Your task to perform on an android device: What's on my calendar tomorrow? Image 0: 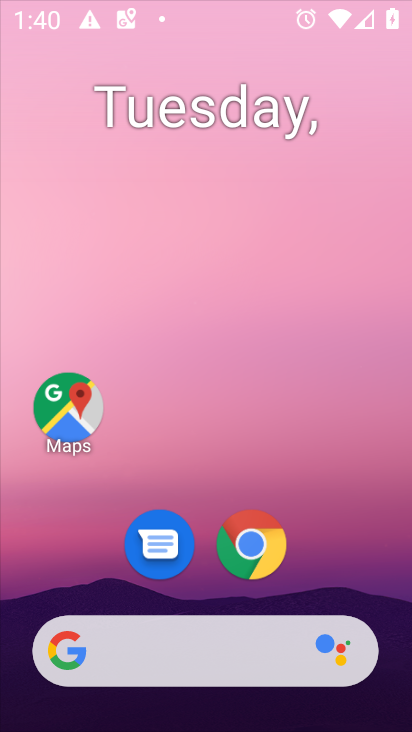
Step 0: press home button
Your task to perform on an android device: What's on my calendar tomorrow? Image 1: 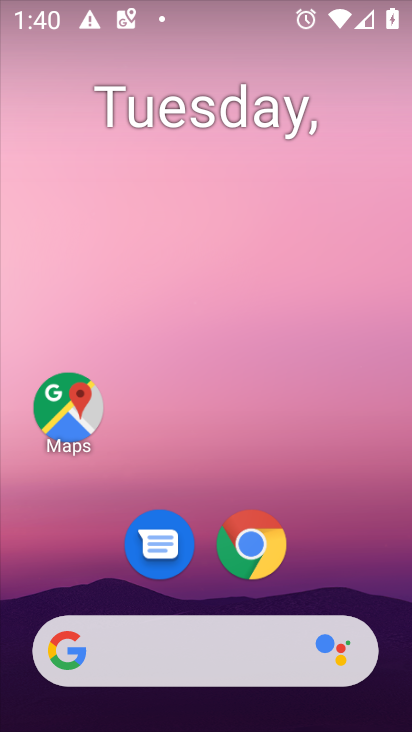
Step 1: press home button
Your task to perform on an android device: What's on my calendar tomorrow? Image 2: 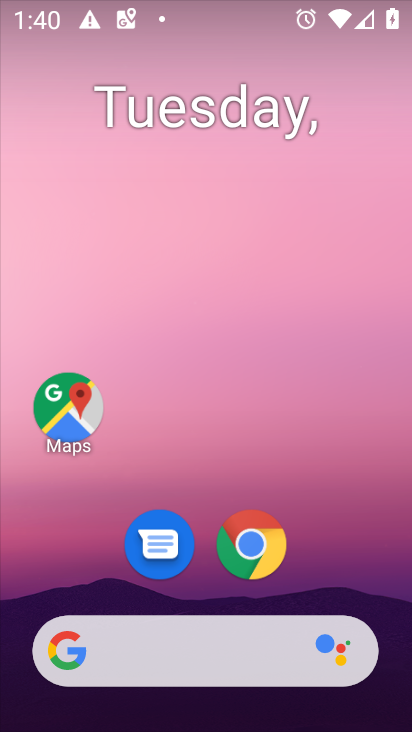
Step 2: drag from (314, 556) to (322, 140)
Your task to perform on an android device: What's on my calendar tomorrow? Image 3: 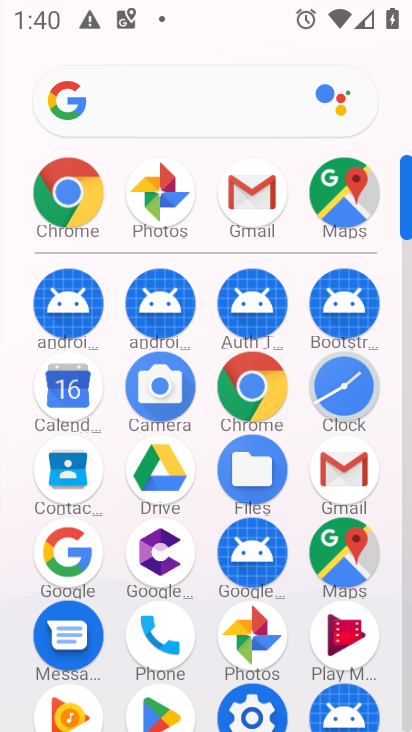
Step 3: click (251, 381)
Your task to perform on an android device: What's on my calendar tomorrow? Image 4: 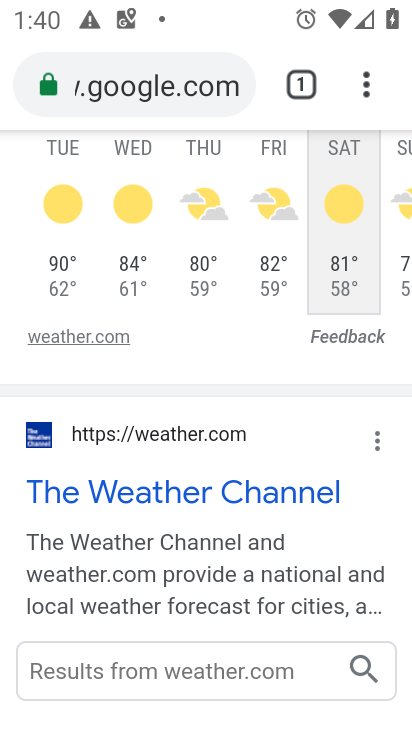
Step 4: press home button
Your task to perform on an android device: What's on my calendar tomorrow? Image 5: 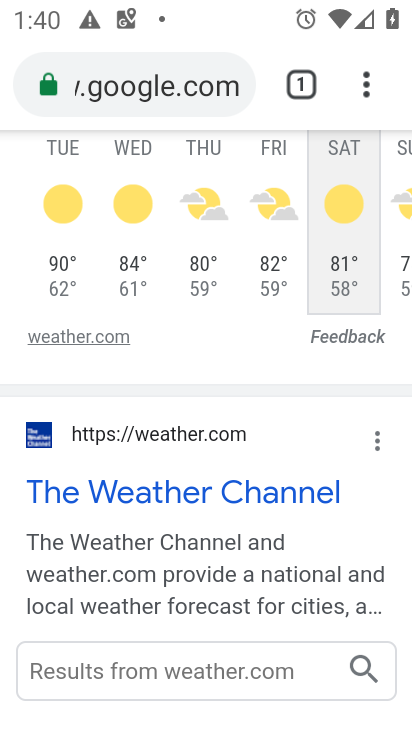
Step 5: press home button
Your task to perform on an android device: What's on my calendar tomorrow? Image 6: 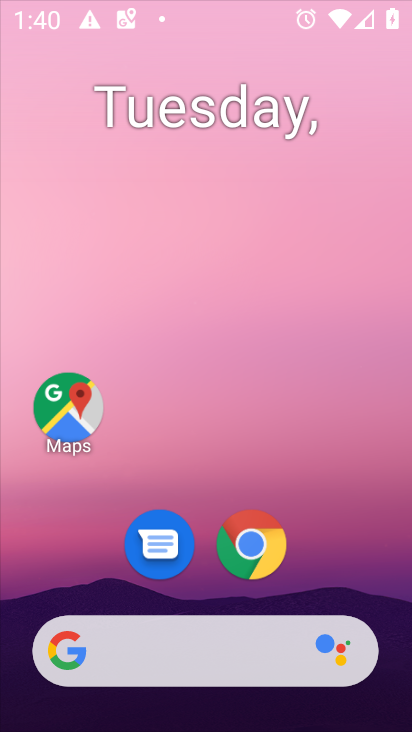
Step 6: press home button
Your task to perform on an android device: What's on my calendar tomorrow? Image 7: 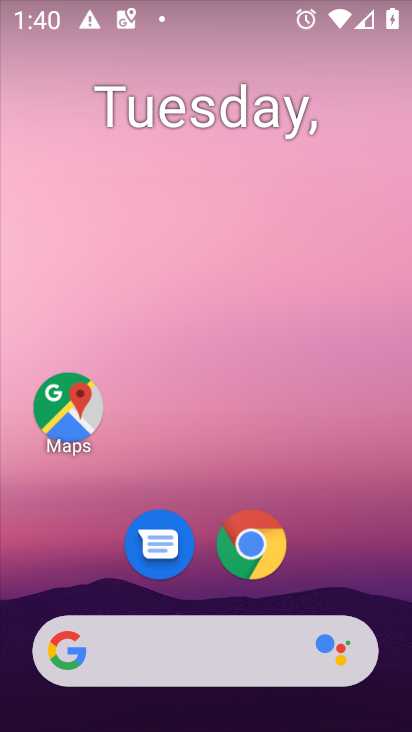
Step 7: drag from (336, 549) to (324, 73)
Your task to perform on an android device: What's on my calendar tomorrow? Image 8: 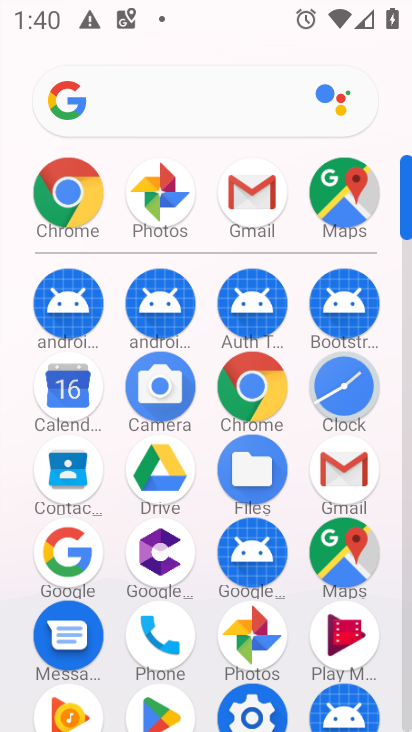
Step 8: click (75, 392)
Your task to perform on an android device: What's on my calendar tomorrow? Image 9: 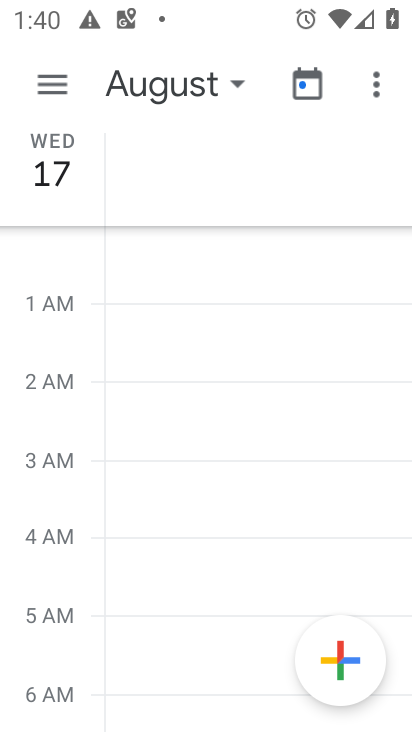
Step 9: click (124, 87)
Your task to perform on an android device: What's on my calendar tomorrow? Image 10: 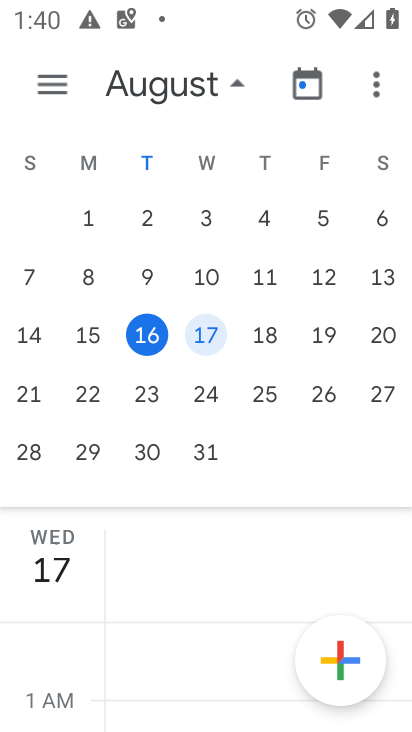
Step 10: click (214, 331)
Your task to perform on an android device: What's on my calendar tomorrow? Image 11: 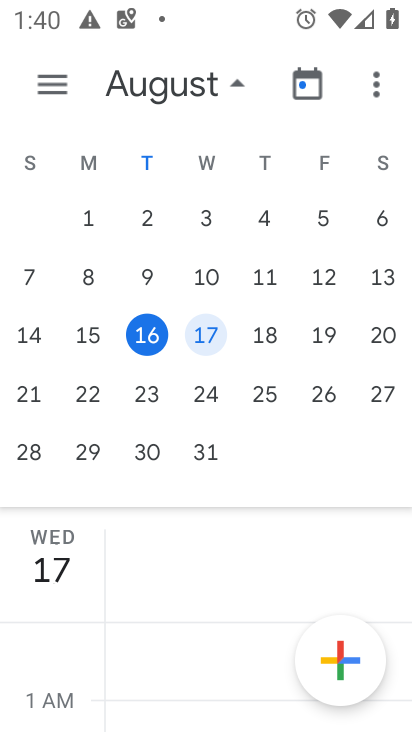
Step 11: task complete